Your task to perform on an android device: Show me productivity apps on the Play Store Image 0: 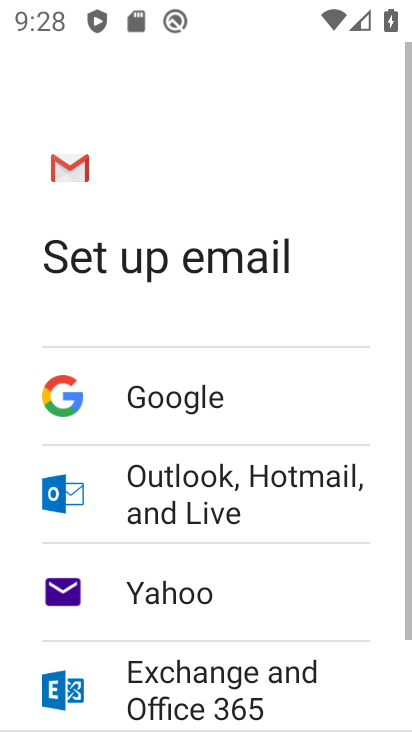
Step 0: press home button
Your task to perform on an android device: Show me productivity apps on the Play Store Image 1: 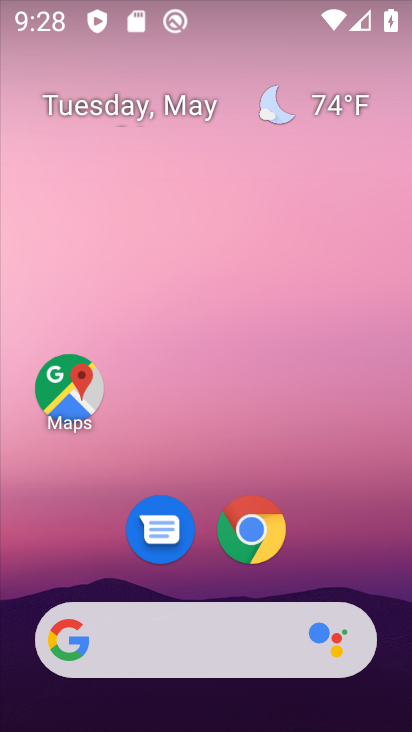
Step 1: drag from (221, 580) to (194, 208)
Your task to perform on an android device: Show me productivity apps on the Play Store Image 2: 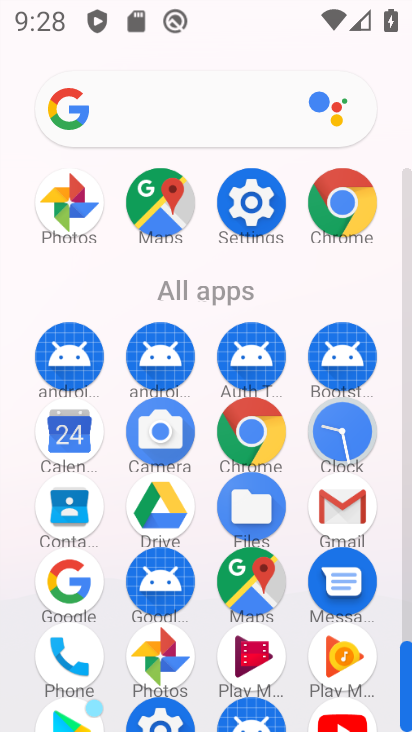
Step 2: click (87, 712)
Your task to perform on an android device: Show me productivity apps on the Play Store Image 3: 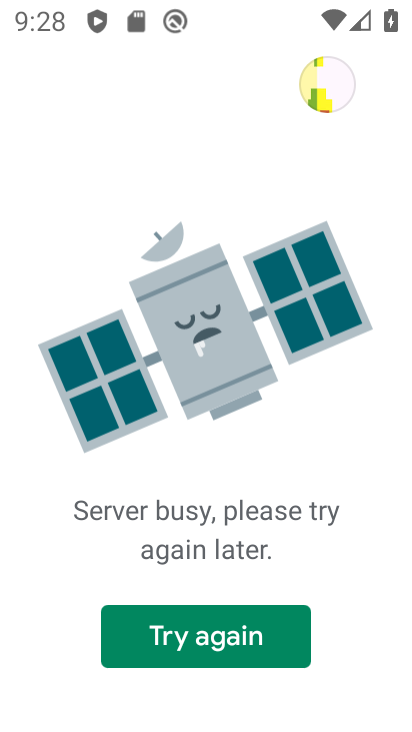
Step 3: task complete